Your task to perform on an android device: turn off location Image 0: 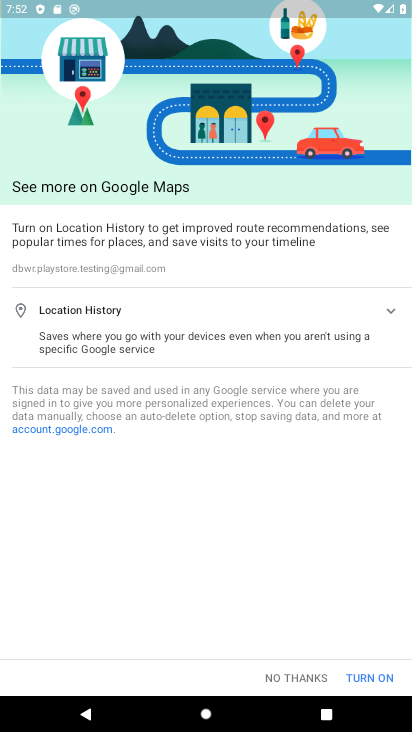
Step 0: press back button
Your task to perform on an android device: turn off location Image 1: 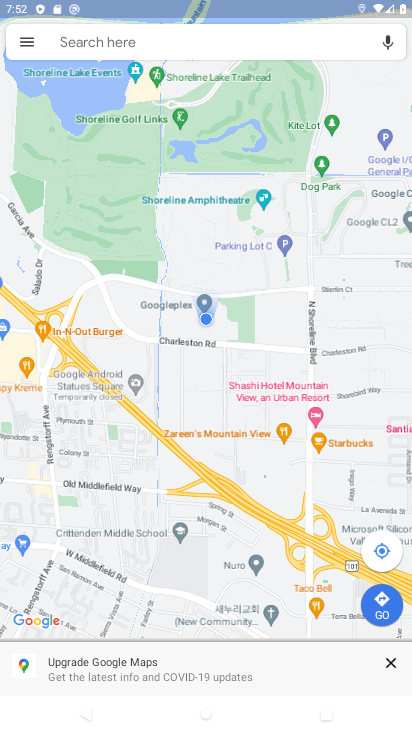
Step 1: press back button
Your task to perform on an android device: turn off location Image 2: 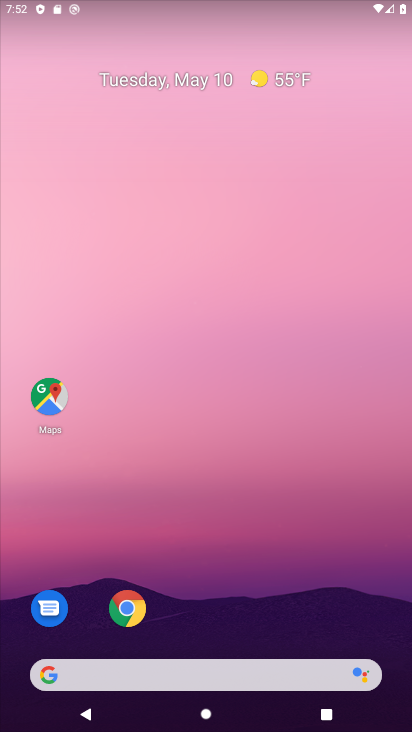
Step 2: drag from (289, 574) to (251, 87)
Your task to perform on an android device: turn off location Image 3: 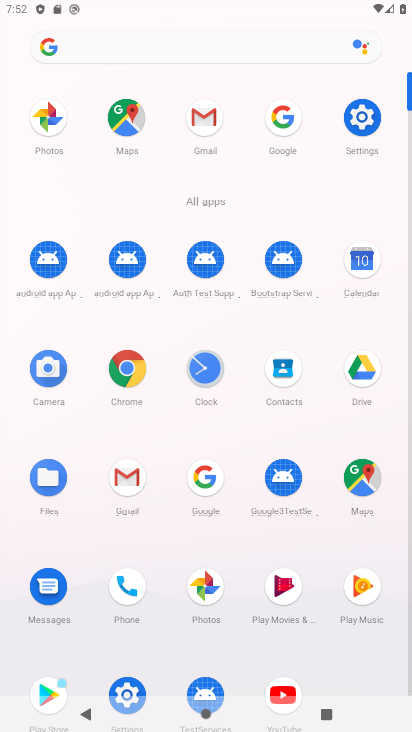
Step 3: click (363, 115)
Your task to perform on an android device: turn off location Image 4: 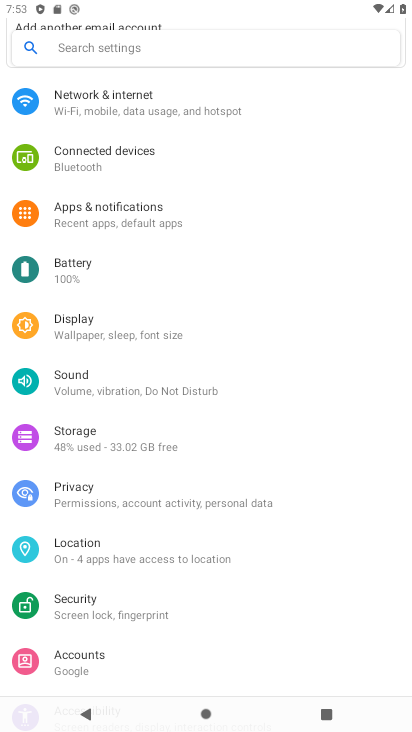
Step 4: click (110, 560)
Your task to perform on an android device: turn off location Image 5: 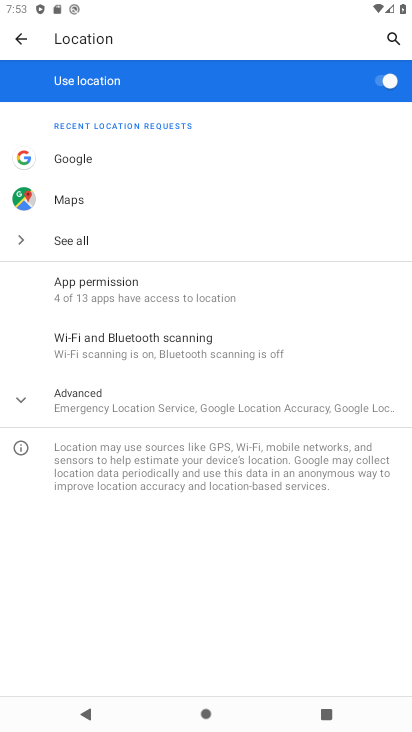
Step 5: click (385, 79)
Your task to perform on an android device: turn off location Image 6: 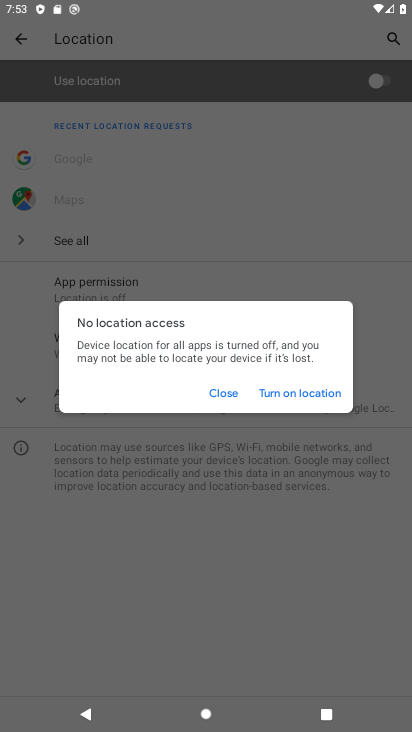
Step 6: click (227, 392)
Your task to perform on an android device: turn off location Image 7: 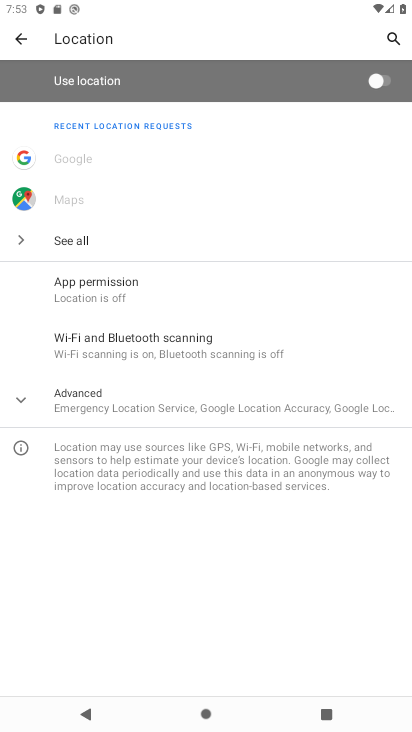
Step 7: task complete